Your task to perform on an android device: Search for sushi restaurants on Maps Image 0: 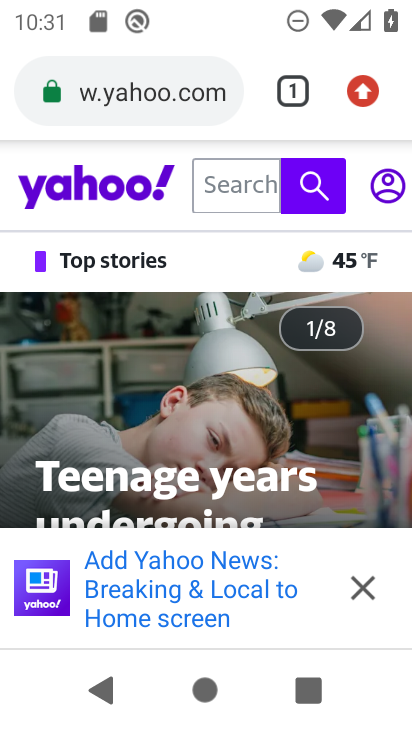
Step 0: drag from (279, 590) to (278, 224)
Your task to perform on an android device: Search for sushi restaurants on Maps Image 1: 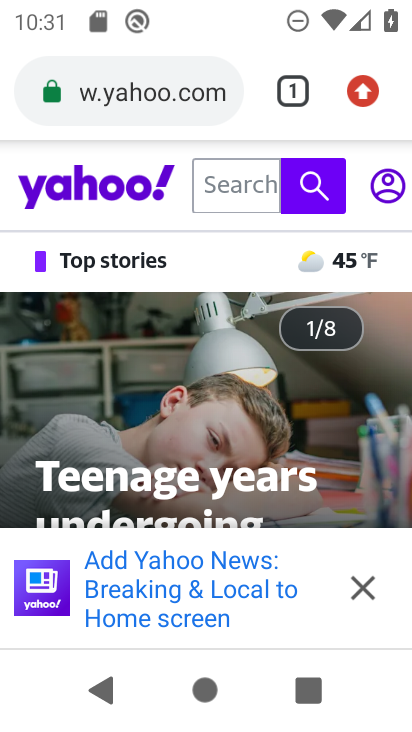
Step 1: press home button
Your task to perform on an android device: Search for sushi restaurants on Maps Image 2: 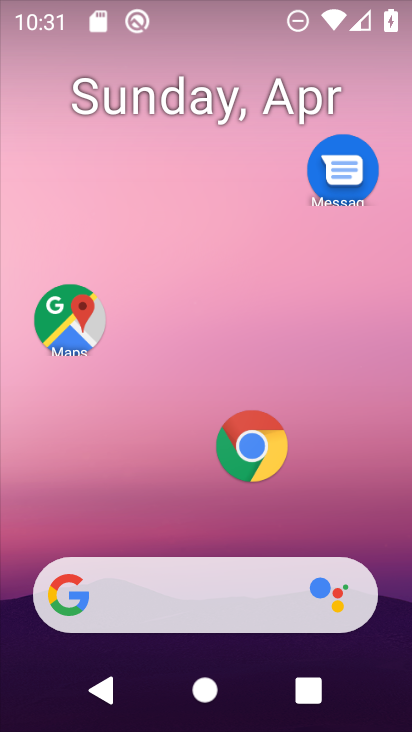
Step 2: drag from (186, 502) to (236, 185)
Your task to perform on an android device: Search for sushi restaurants on Maps Image 3: 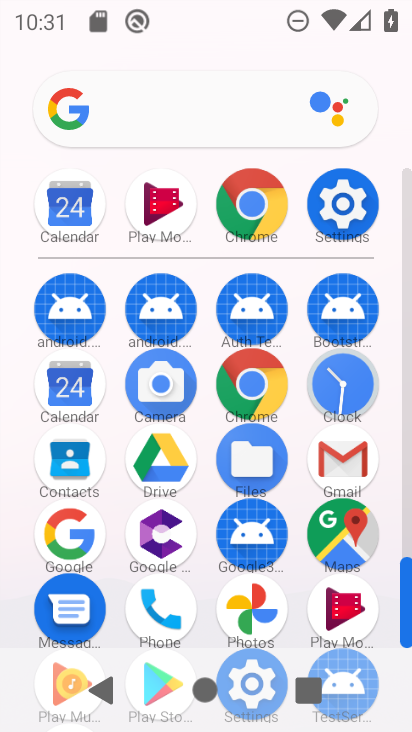
Step 3: click (338, 526)
Your task to perform on an android device: Search for sushi restaurants on Maps Image 4: 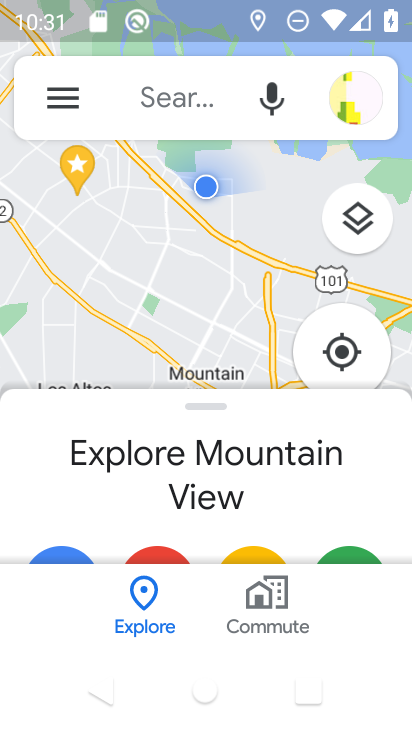
Step 4: drag from (202, 482) to (229, 222)
Your task to perform on an android device: Search for sushi restaurants on Maps Image 5: 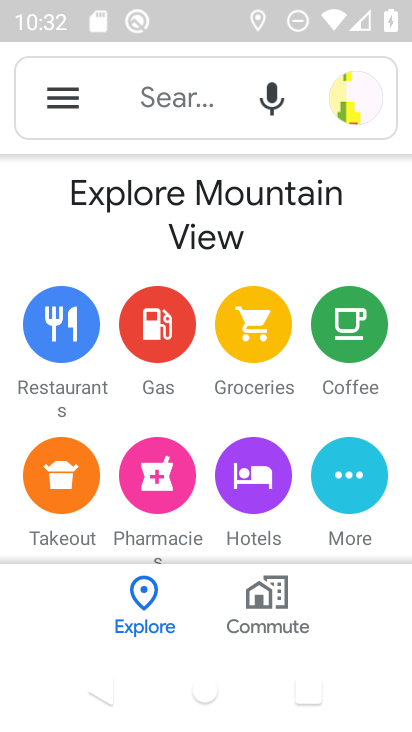
Step 5: click (178, 110)
Your task to perform on an android device: Search for sushi restaurants on Maps Image 6: 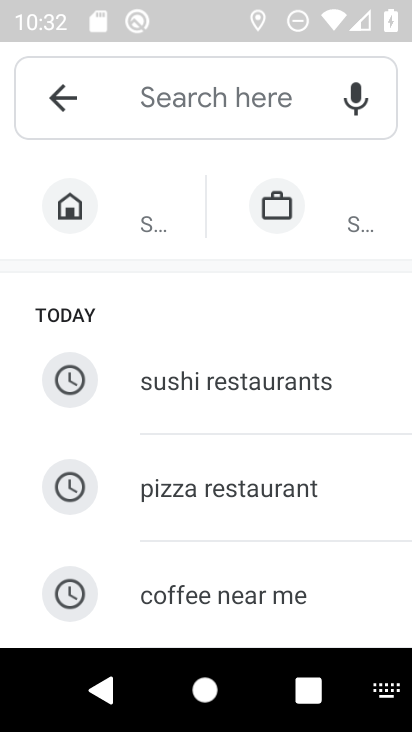
Step 6: click (254, 413)
Your task to perform on an android device: Search for sushi restaurants on Maps Image 7: 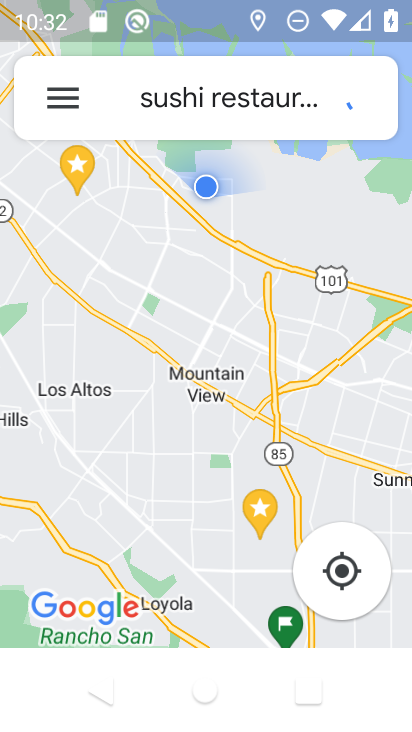
Step 7: task complete